Your task to perform on an android device: Open Google Chrome Image 0: 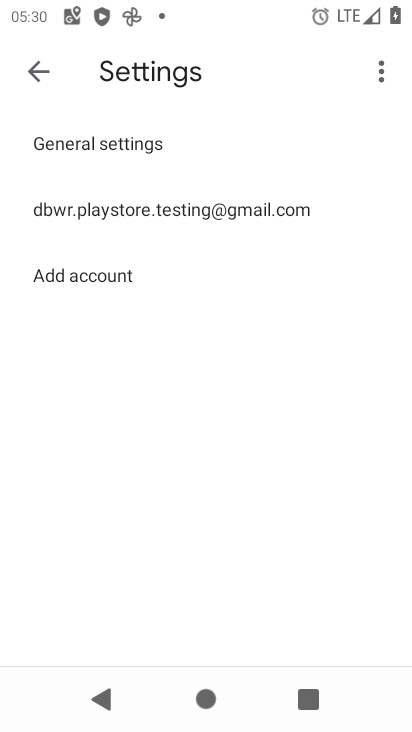
Step 0: press home button
Your task to perform on an android device: Open Google Chrome Image 1: 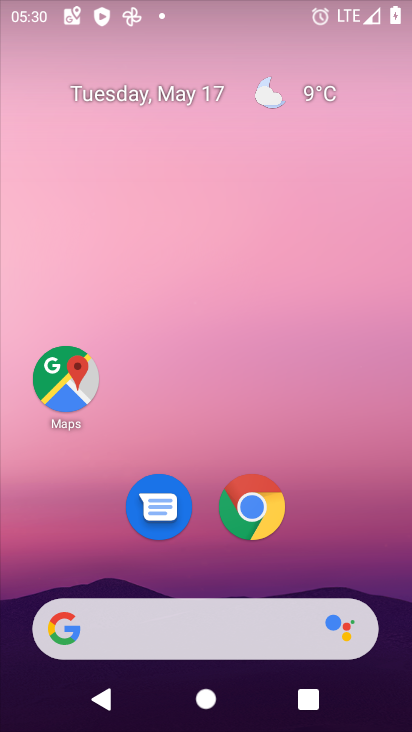
Step 1: click (255, 507)
Your task to perform on an android device: Open Google Chrome Image 2: 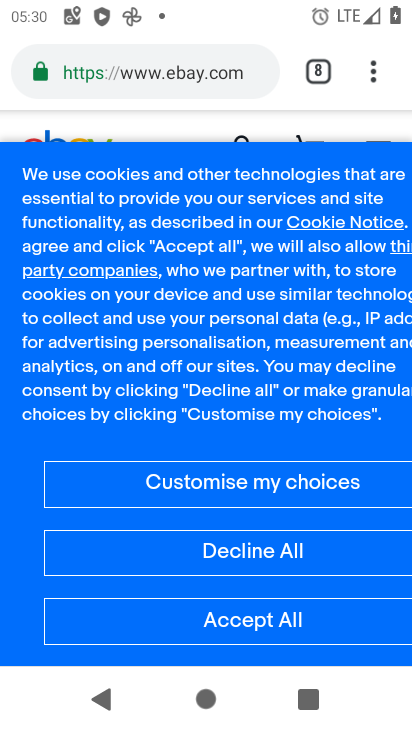
Step 2: task complete